Your task to perform on an android device: open app "Gmail" Image 0: 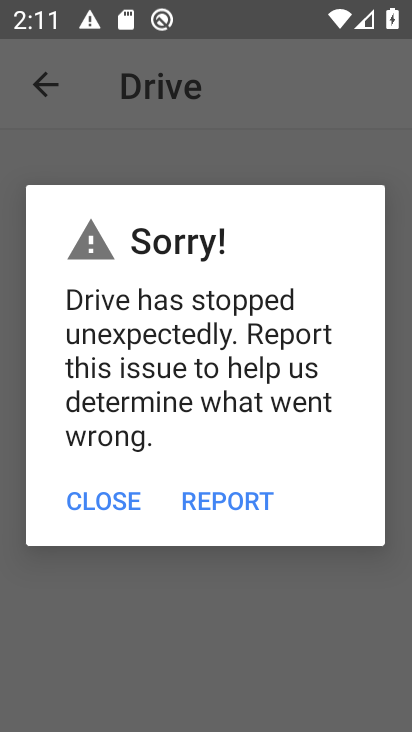
Step 0: press home button
Your task to perform on an android device: open app "Gmail" Image 1: 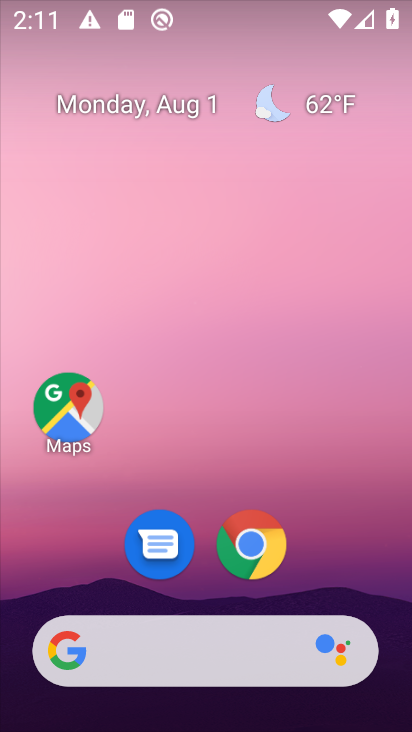
Step 1: drag from (395, 600) to (233, 66)
Your task to perform on an android device: open app "Gmail" Image 2: 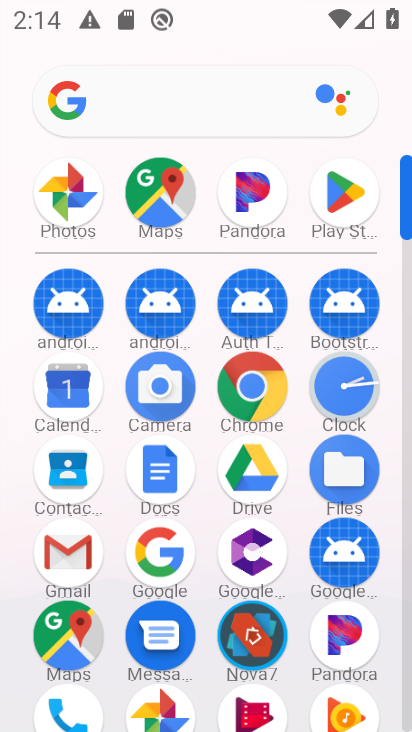
Step 2: click (333, 201)
Your task to perform on an android device: open app "Gmail" Image 3: 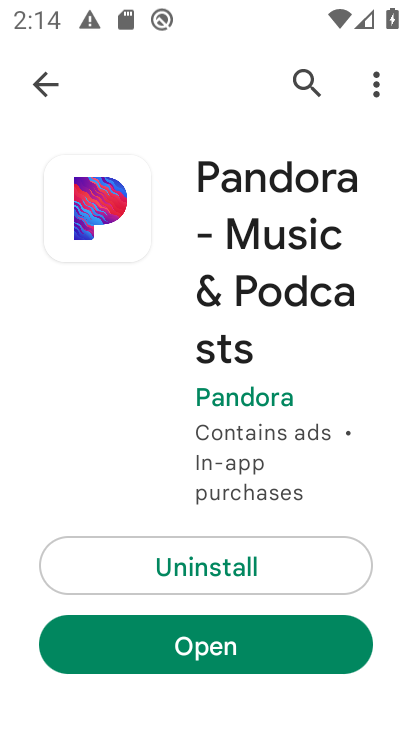
Step 3: press back button
Your task to perform on an android device: open app "Gmail" Image 4: 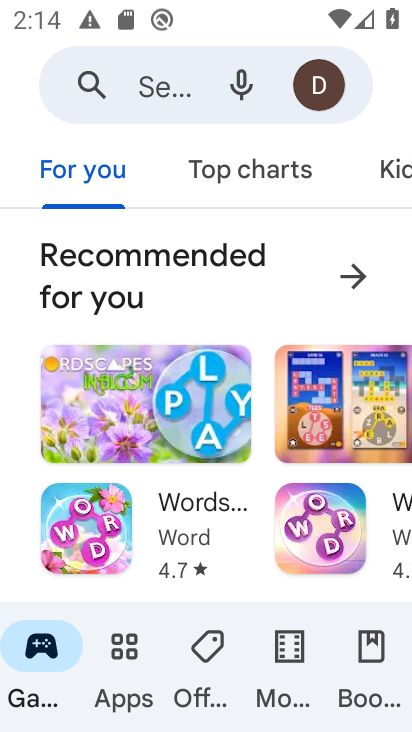
Step 4: click (158, 89)
Your task to perform on an android device: open app "Gmail" Image 5: 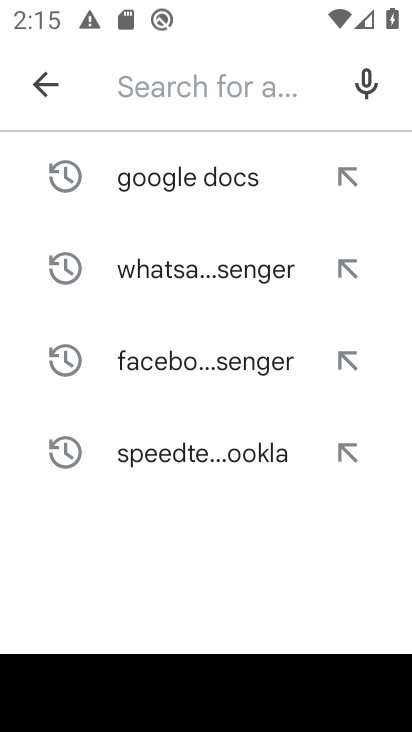
Step 5: type "Gmail"
Your task to perform on an android device: open app "Gmail" Image 6: 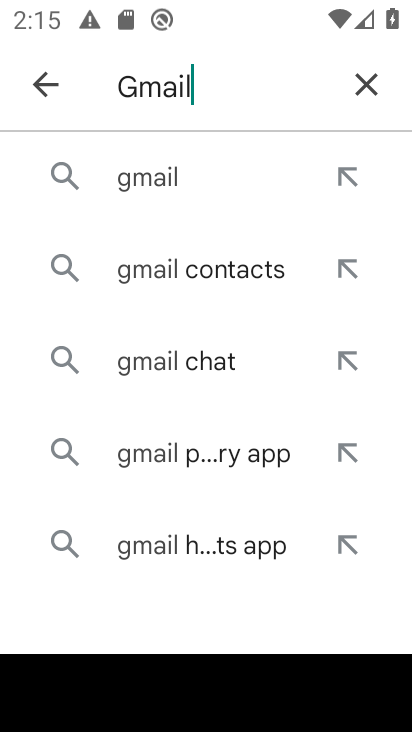
Step 6: click (161, 180)
Your task to perform on an android device: open app "Gmail" Image 7: 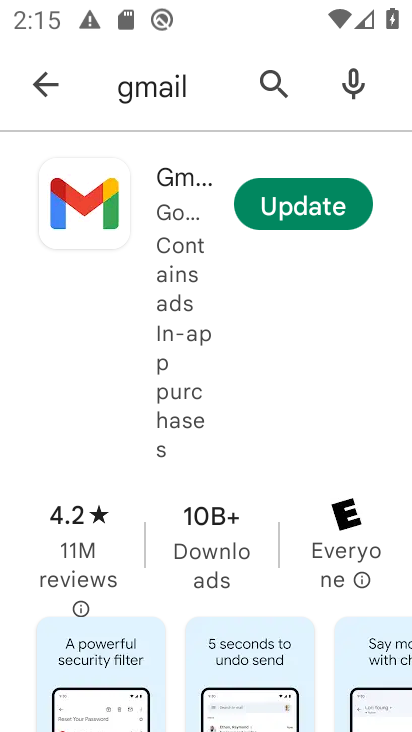
Step 7: click (308, 213)
Your task to perform on an android device: open app "Gmail" Image 8: 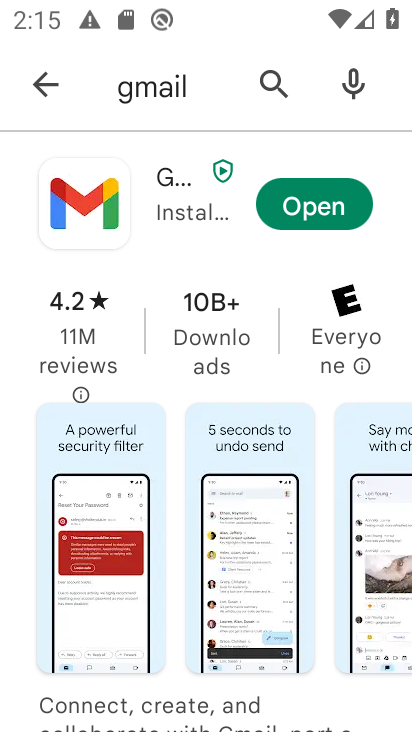
Step 8: task complete